Your task to perform on an android device: What's the weather like in Los Angeles? Image 0: 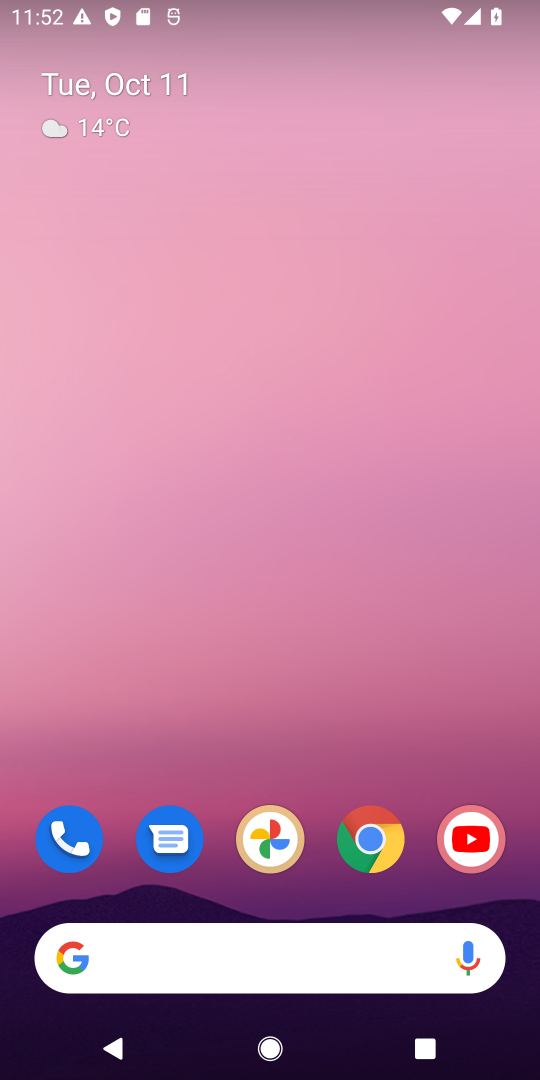
Step 0: click (354, 859)
Your task to perform on an android device: What's the weather like in Los Angeles? Image 1: 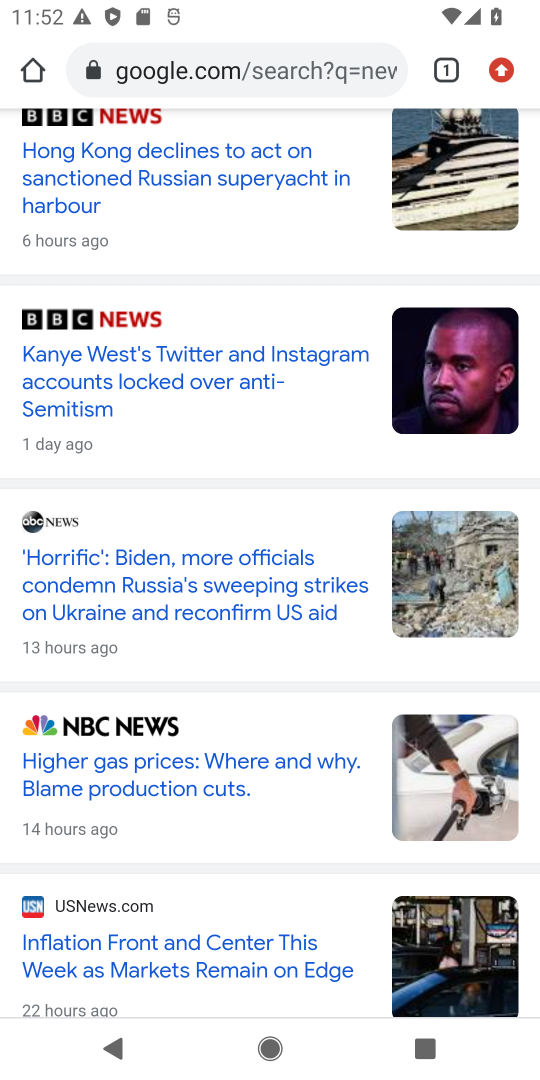
Step 1: click (318, 61)
Your task to perform on an android device: What's the weather like in Los Angeles? Image 2: 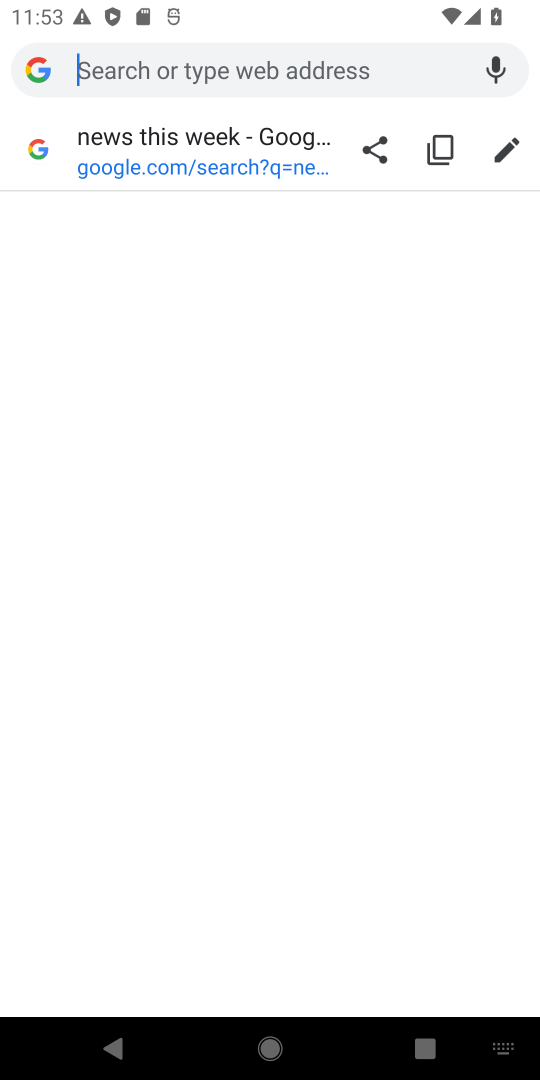
Step 2: type "weather like in Los Angeles"
Your task to perform on an android device: What's the weather like in Los Angeles? Image 3: 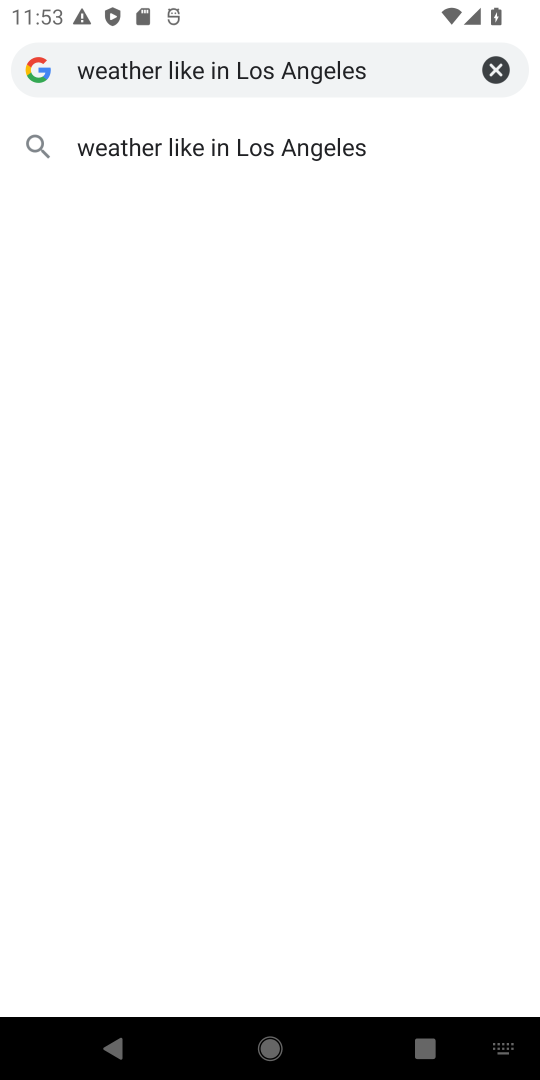
Step 3: click (293, 142)
Your task to perform on an android device: What's the weather like in Los Angeles? Image 4: 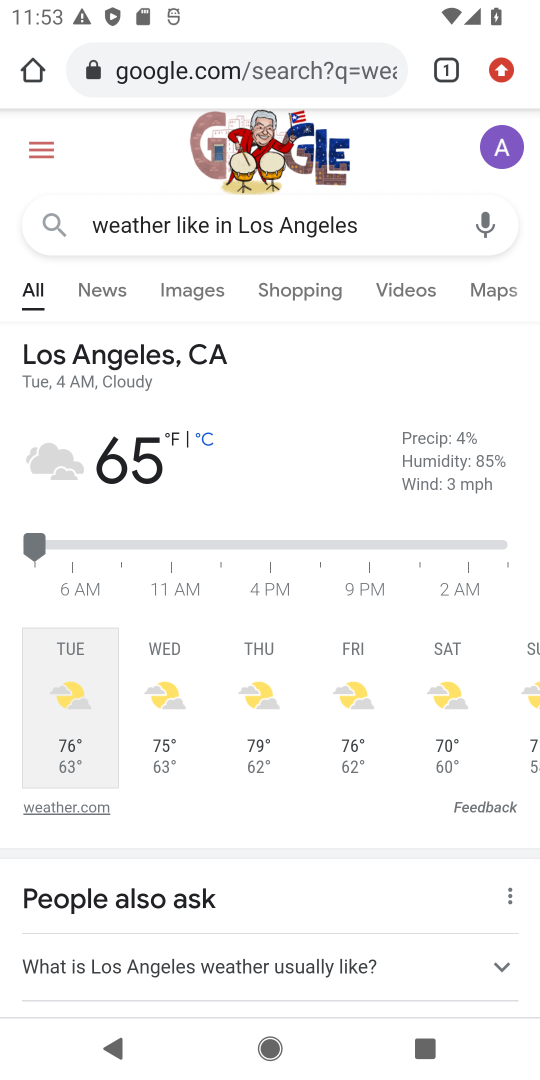
Step 4: task complete